Your task to perform on an android device: install app "Google Calendar" Image 0: 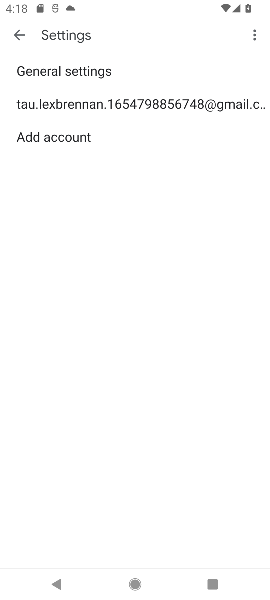
Step 0: press home button
Your task to perform on an android device: install app "Google Calendar" Image 1: 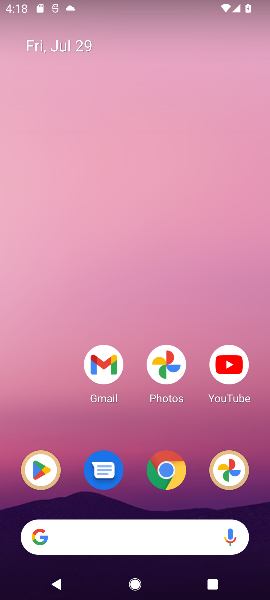
Step 1: click (34, 460)
Your task to perform on an android device: install app "Google Calendar" Image 2: 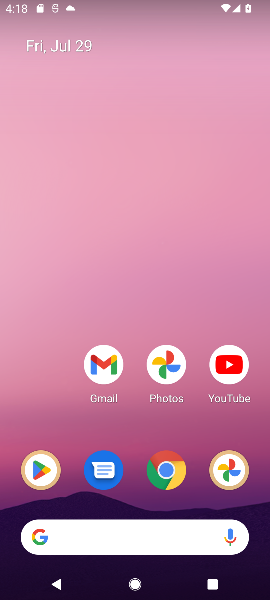
Step 2: click (34, 460)
Your task to perform on an android device: install app "Google Calendar" Image 3: 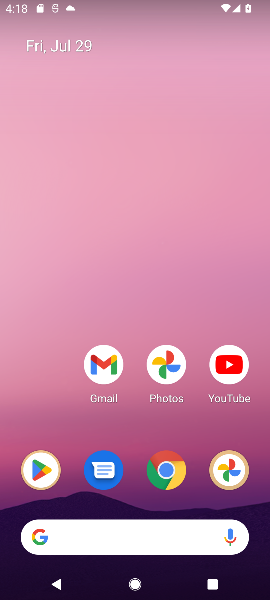
Step 3: click (34, 460)
Your task to perform on an android device: install app "Google Calendar" Image 4: 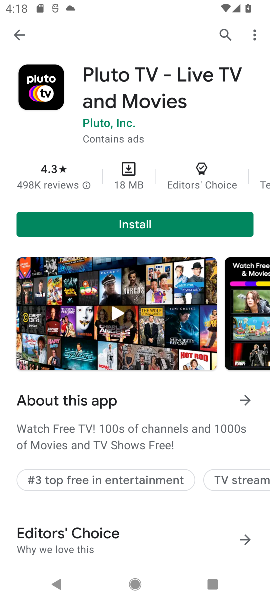
Step 4: click (219, 34)
Your task to perform on an android device: install app "Google Calendar" Image 5: 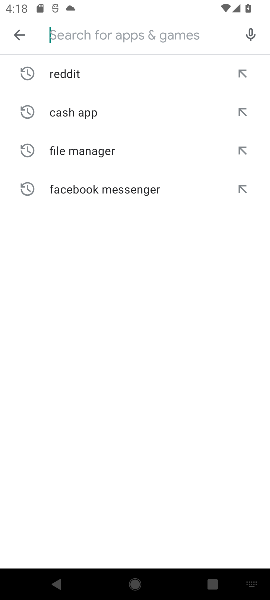
Step 5: type "Google Calendar"
Your task to perform on an android device: install app "Google Calendar" Image 6: 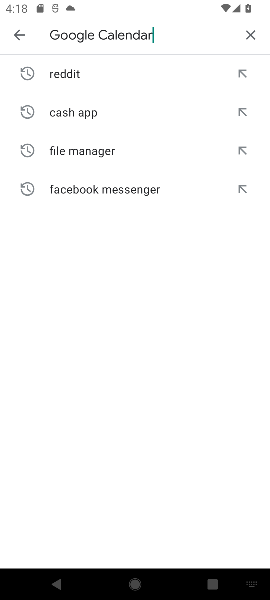
Step 6: press home button
Your task to perform on an android device: install app "Google Calendar" Image 7: 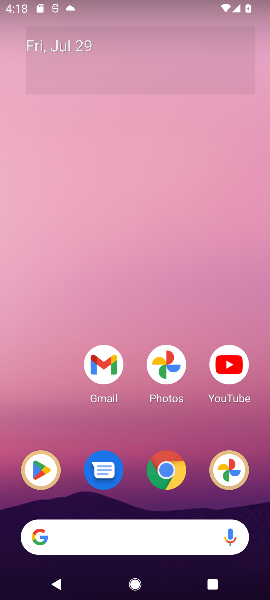
Step 7: drag from (93, 584) to (190, 269)
Your task to perform on an android device: install app "Google Calendar" Image 8: 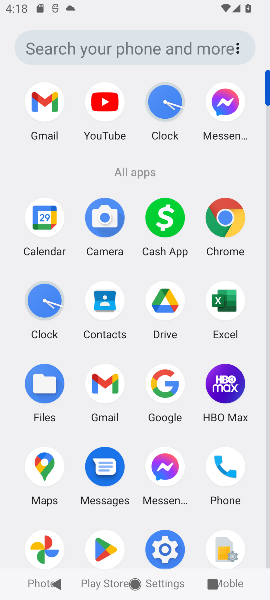
Step 8: click (101, 553)
Your task to perform on an android device: install app "Google Calendar" Image 9: 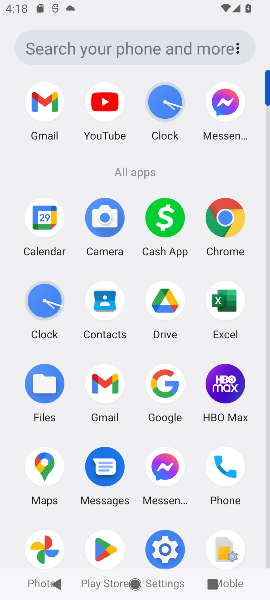
Step 9: click (101, 553)
Your task to perform on an android device: install app "Google Calendar" Image 10: 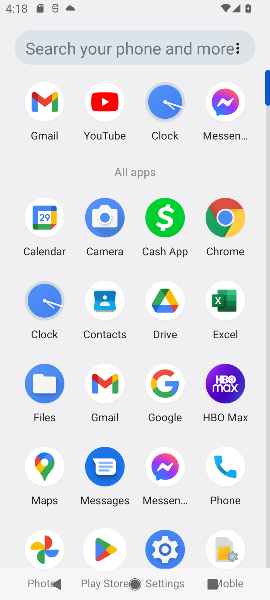
Step 10: click (101, 553)
Your task to perform on an android device: install app "Google Calendar" Image 11: 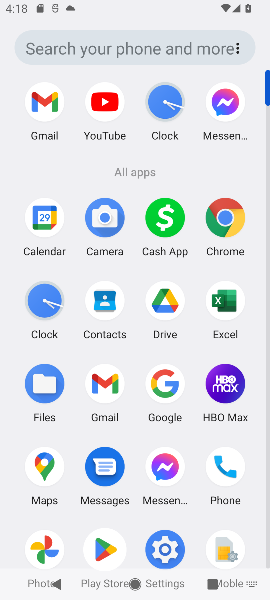
Step 11: click (101, 553)
Your task to perform on an android device: install app "Google Calendar" Image 12: 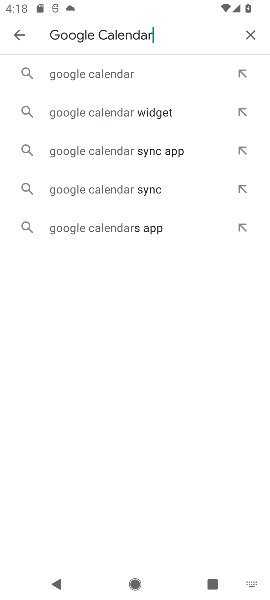
Step 12: click (101, 553)
Your task to perform on an android device: install app "Google Calendar" Image 13: 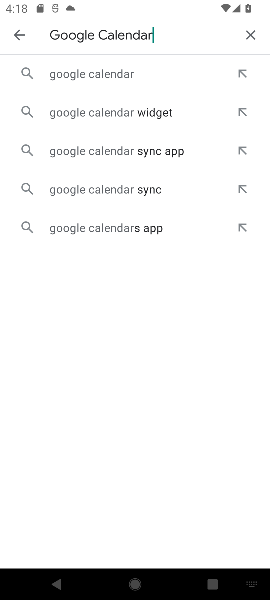
Step 13: click (118, 70)
Your task to perform on an android device: install app "Google Calendar" Image 14: 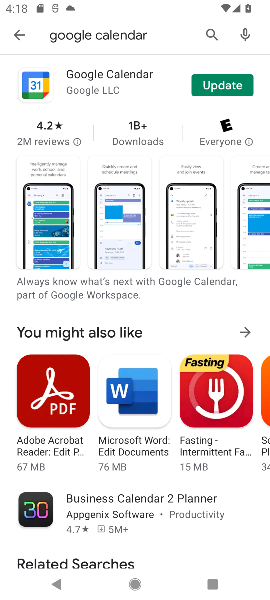
Step 14: task complete